Your task to perform on an android device: Do I have any events this weekend? Image 0: 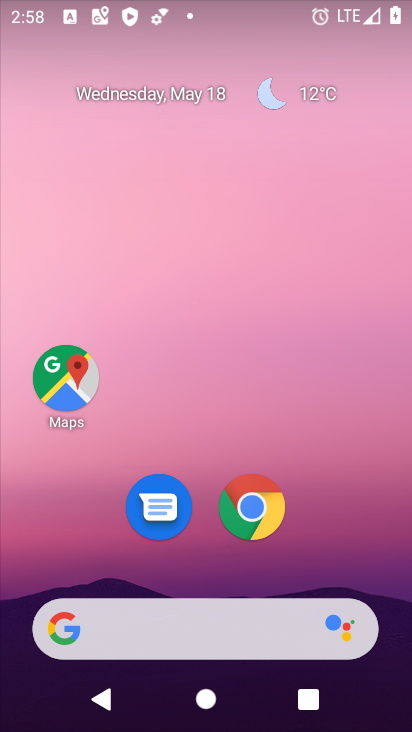
Step 0: drag from (391, 617) to (363, 47)
Your task to perform on an android device: Do I have any events this weekend? Image 1: 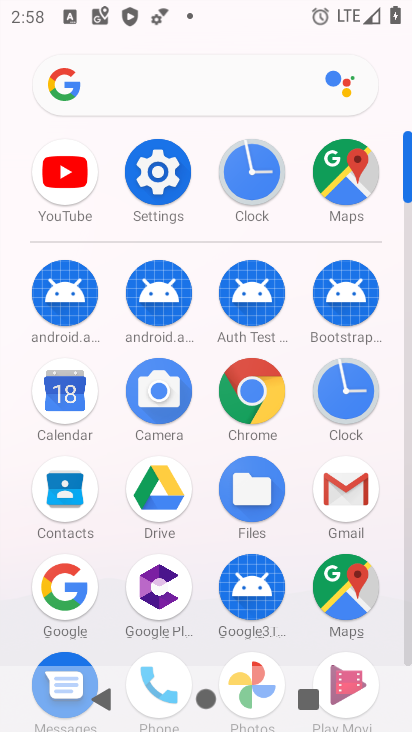
Step 1: click (63, 392)
Your task to perform on an android device: Do I have any events this weekend? Image 2: 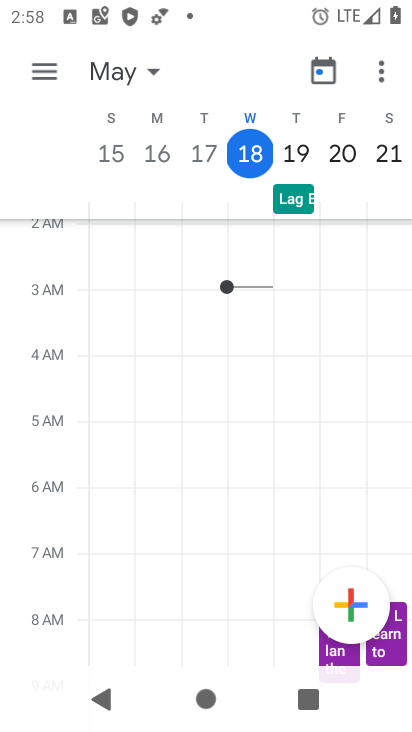
Step 2: task complete